Your task to perform on an android device: open chrome and create a bookmark for the current page Image 0: 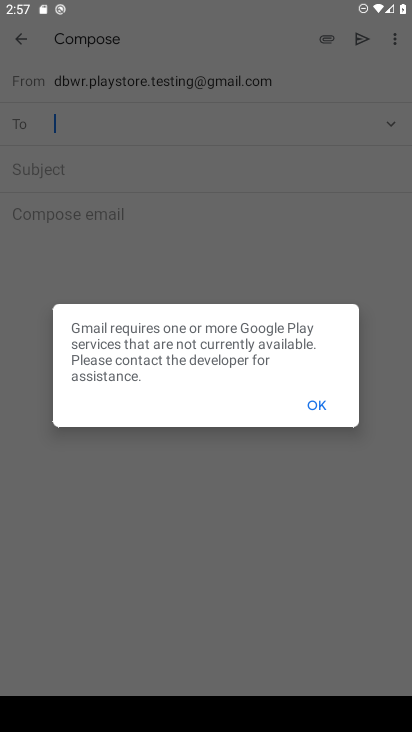
Step 0: press home button
Your task to perform on an android device: open chrome and create a bookmark for the current page Image 1: 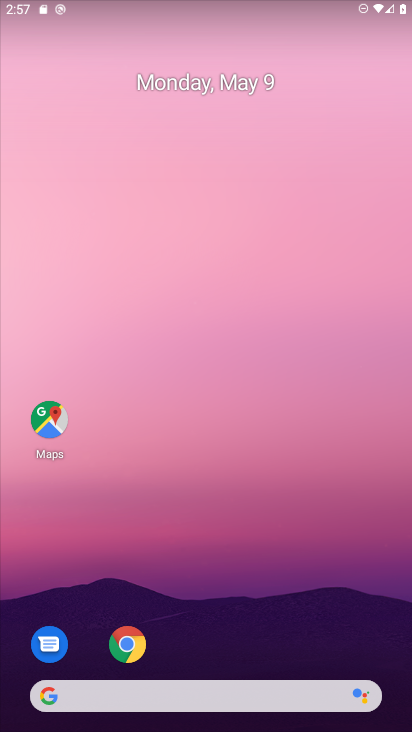
Step 1: click (129, 654)
Your task to perform on an android device: open chrome and create a bookmark for the current page Image 2: 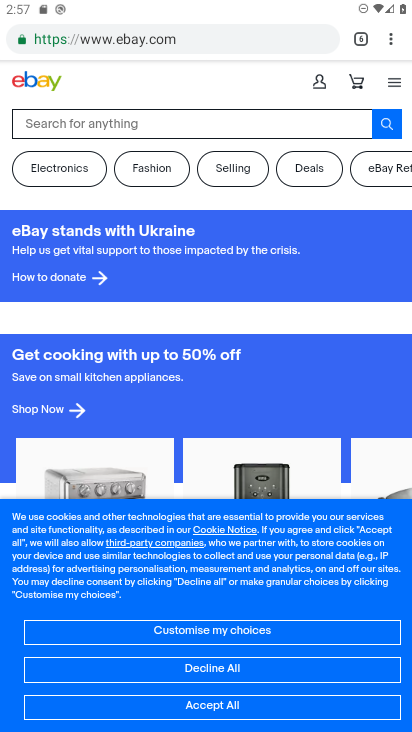
Step 2: click (393, 43)
Your task to perform on an android device: open chrome and create a bookmark for the current page Image 3: 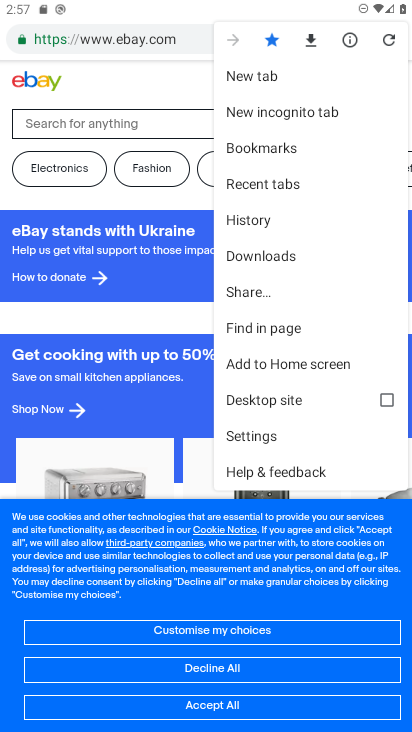
Step 3: task complete